Your task to perform on an android device: Open the stopwatch Image 0: 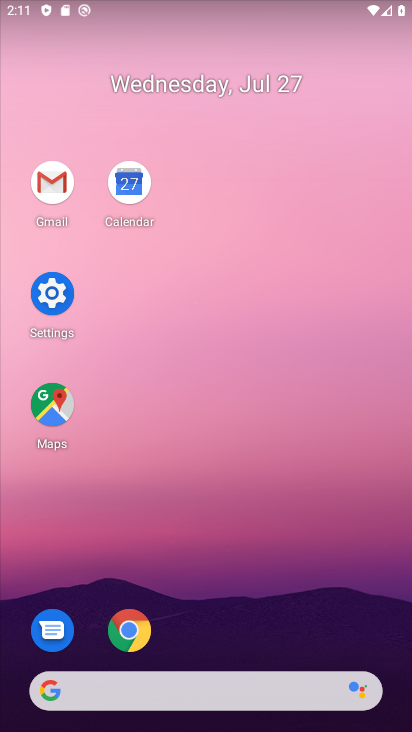
Step 0: drag from (226, 634) to (239, 170)
Your task to perform on an android device: Open the stopwatch Image 1: 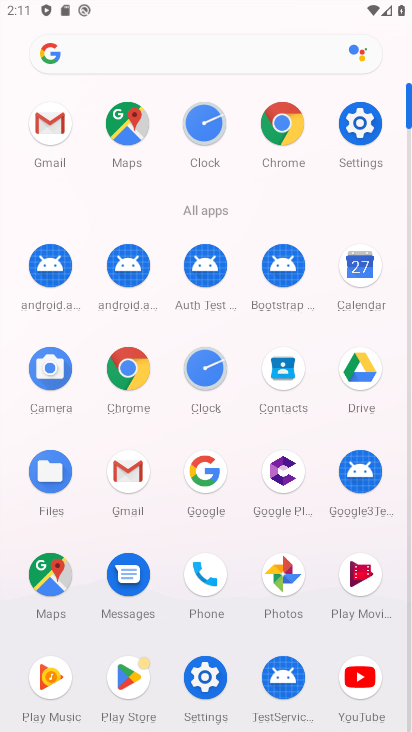
Step 1: click (217, 373)
Your task to perform on an android device: Open the stopwatch Image 2: 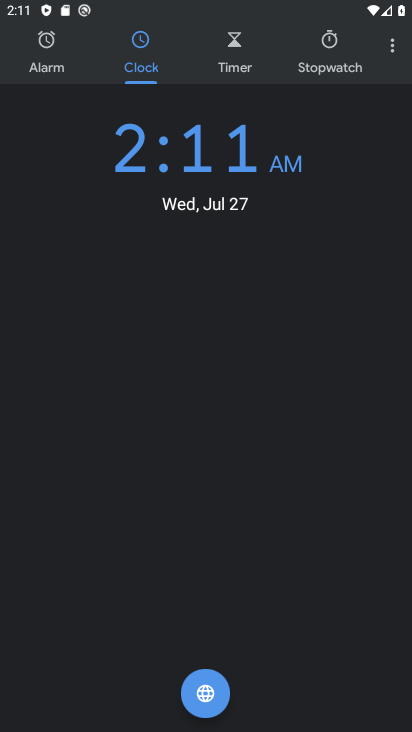
Step 2: click (314, 52)
Your task to perform on an android device: Open the stopwatch Image 3: 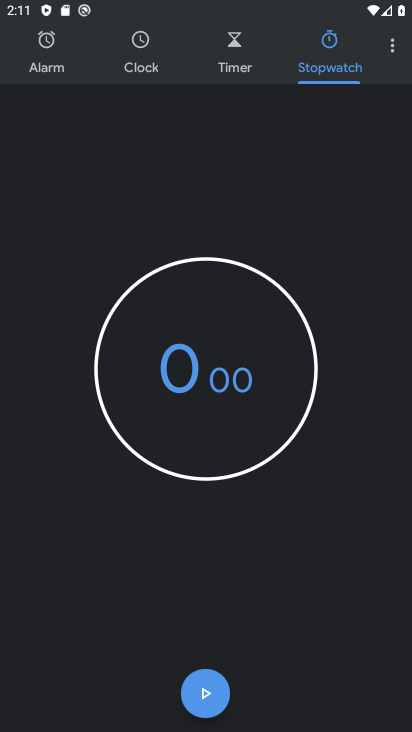
Step 3: click (210, 334)
Your task to perform on an android device: Open the stopwatch Image 4: 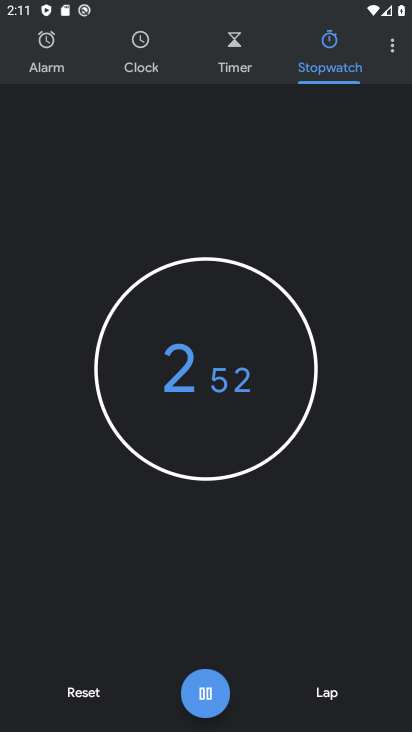
Step 4: task complete